Your task to perform on an android device: Search for Italian restaurants on Maps Image 0: 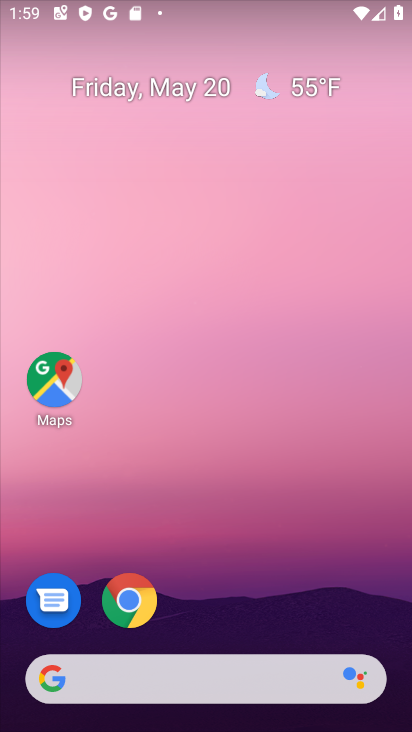
Step 0: drag from (208, 637) to (312, 54)
Your task to perform on an android device: Search for Italian restaurants on Maps Image 1: 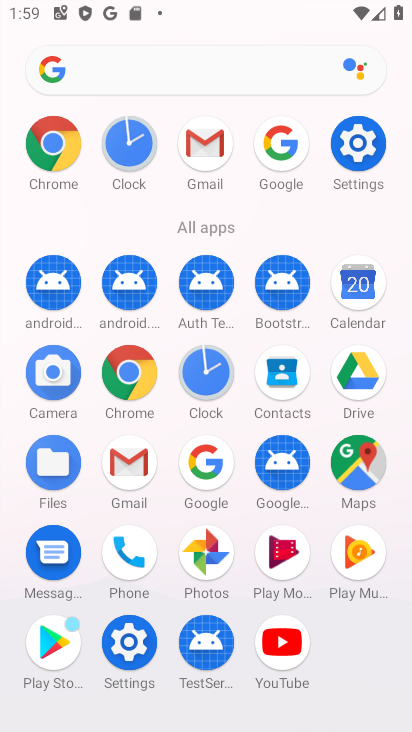
Step 1: click (360, 472)
Your task to perform on an android device: Search for Italian restaurants on Maps Image 2: 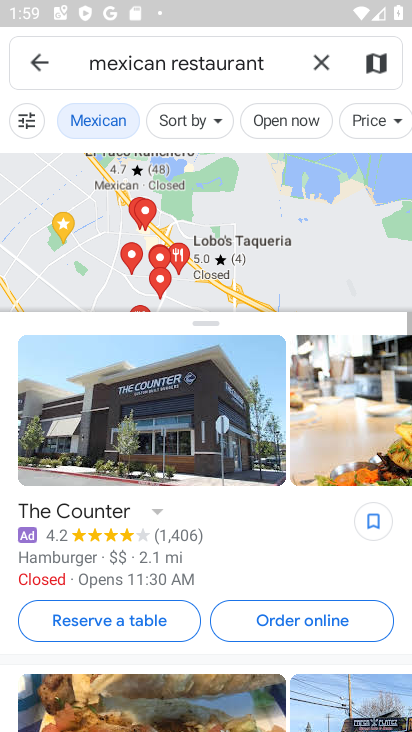
Step 2: click (319, 69)
Your task to perform on an android device: Search for Italian restaurants on Maps Image 3: 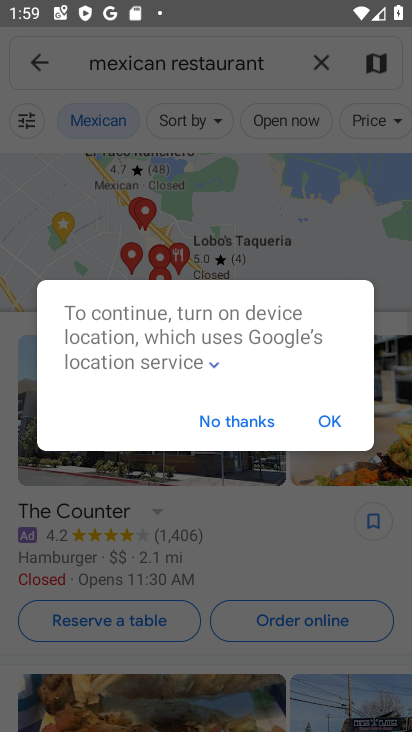
Step 3: click (320, 425)
Your task to perform on an android device: Search for Italian restaurants on Maps Image 4: 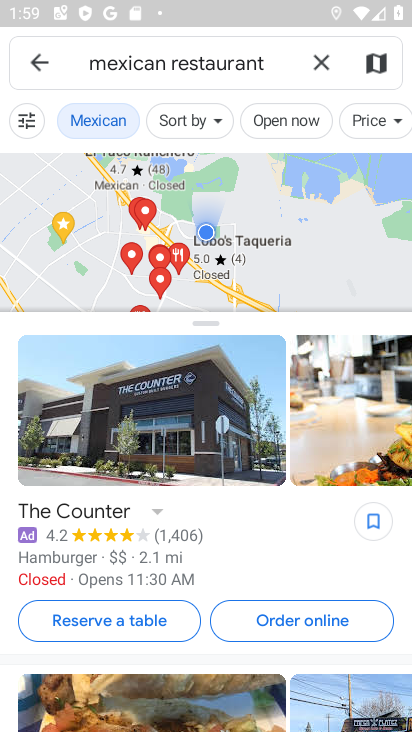
Step 4: click (321, 69)
Your task to perform on an android device: Search for Italian restaurants on Maps Image 5: 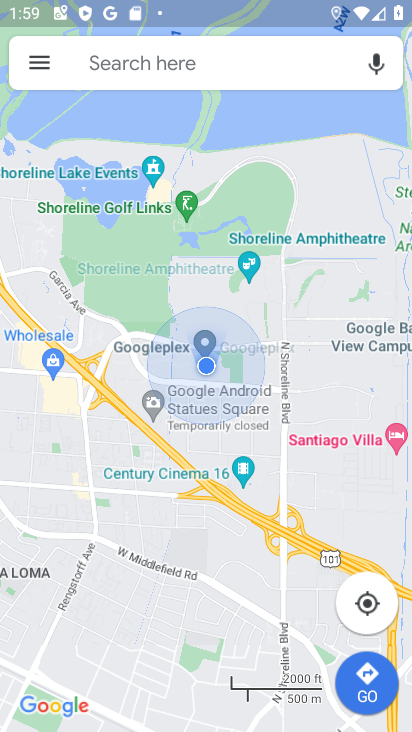
Step 5: click (288, 61)
Your task to perform on an android device: Search for Italian restaurants on Maps Image 6: 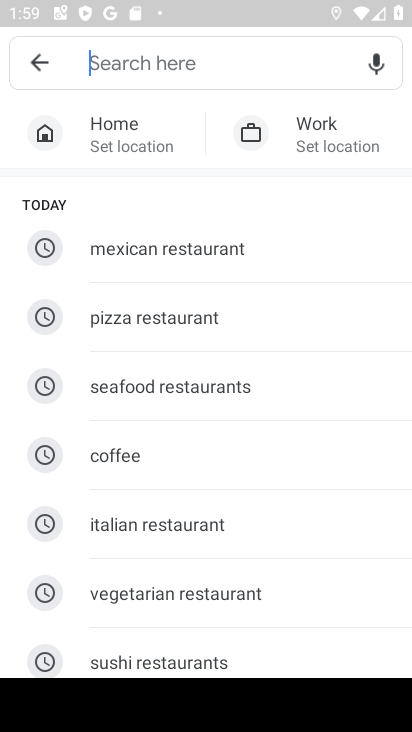
Step 6: click (170, 530)
Your task to perform on an android device: Search for Italian restaurants on Maps Image 7: 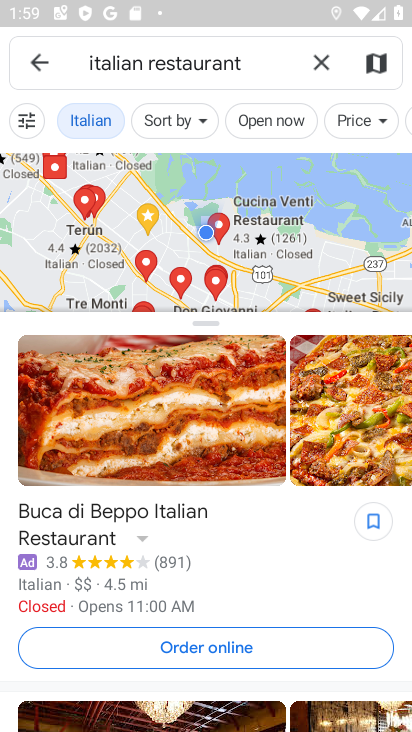
Step 7: task complete